Your task to perform on an android device: Clear the shopping cart on target. Add "apple airpods" to the cart on target, then select checkout. Image 0: 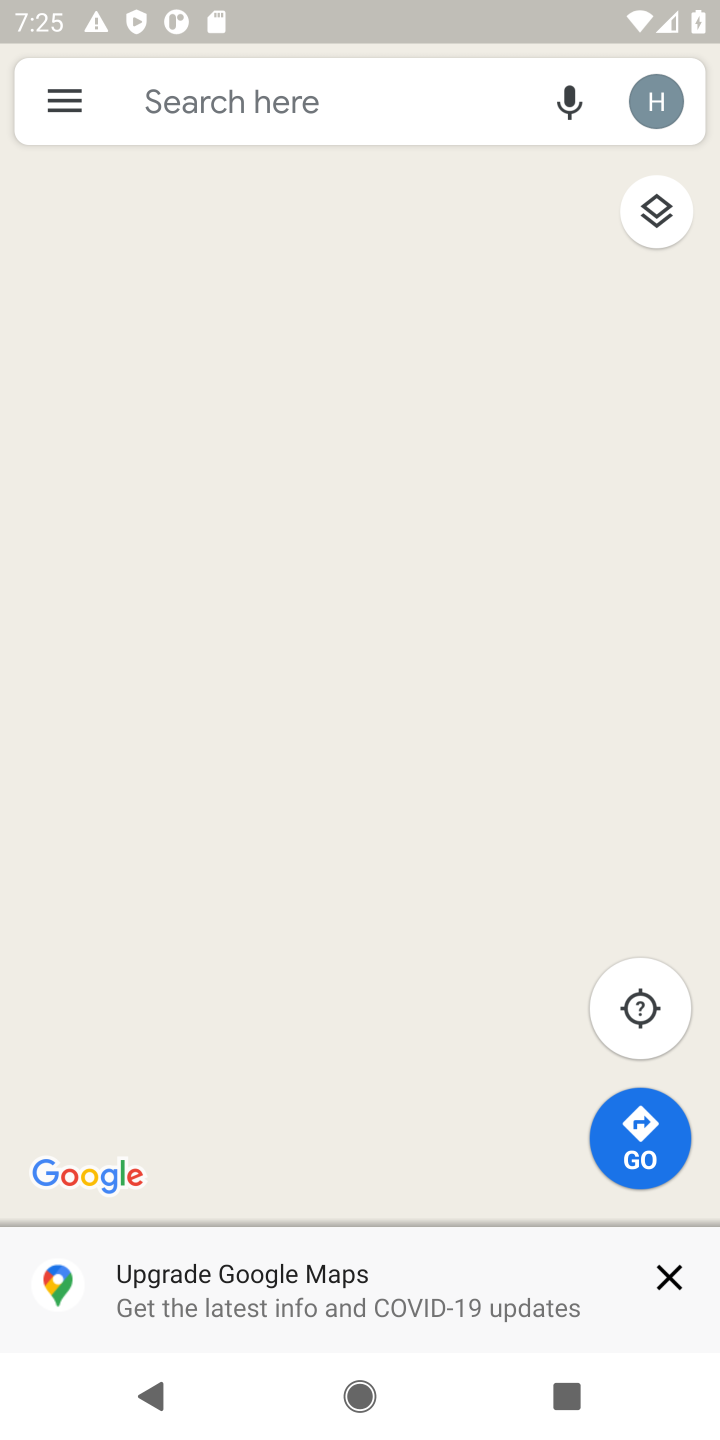
Step 0: press home button
Your task to perform on an android device: Clear the shopping cart on target. Add "apple airpods" to the cart on target, then select checkout. Image 1: 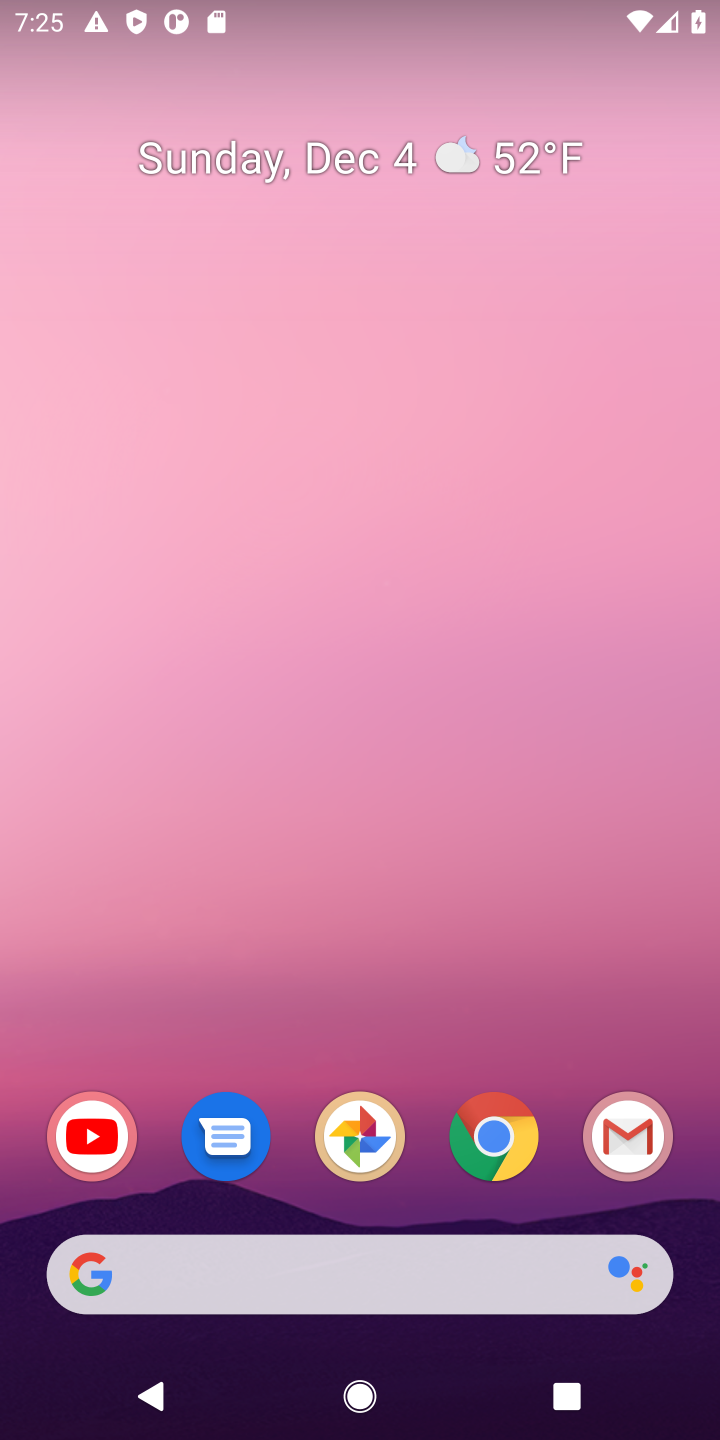
Step 1: click (480, 1134)
Your task to perform on an android device: Clear the shopping cart on target. Add "apple airpods" to the cart on target, then select checkout. Image 2: 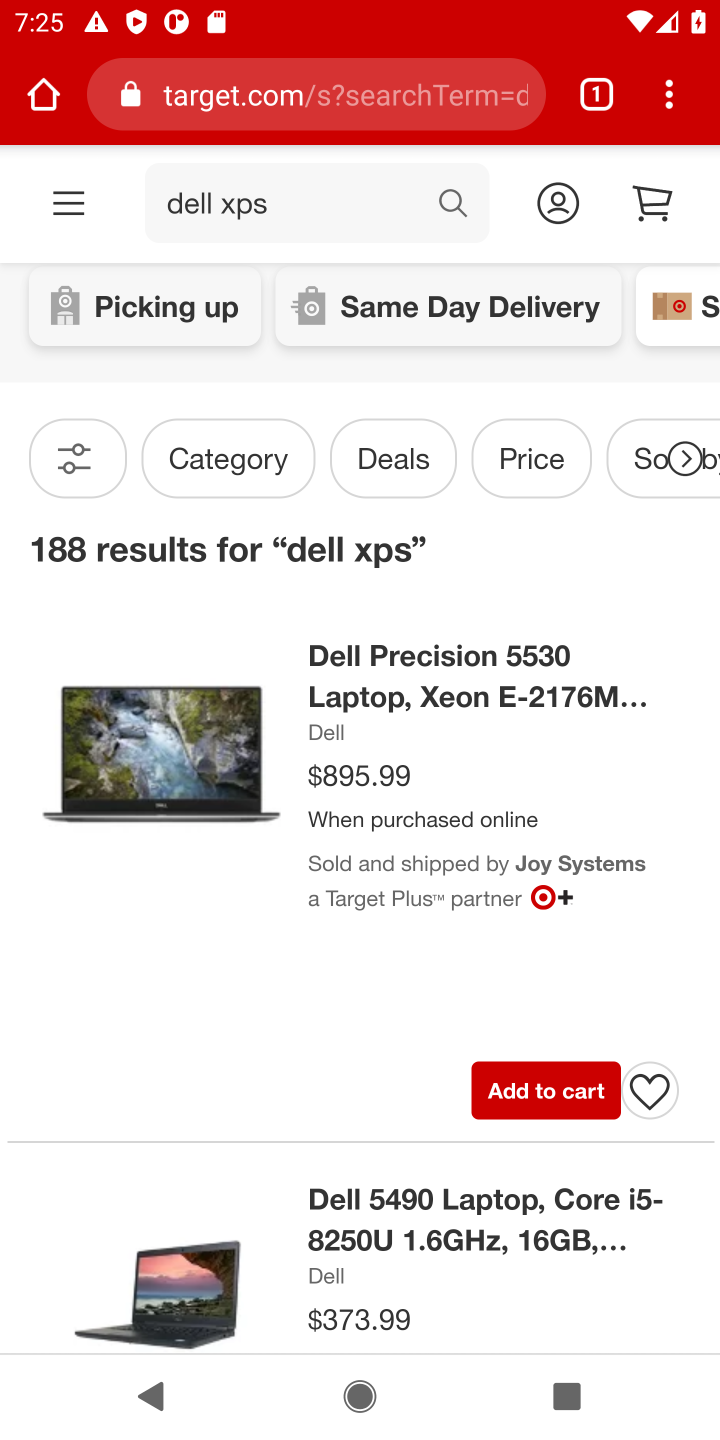
Step 2: click (659, 190)
Your task to perform on an android device: Clear the shopping cart on target. Add "apple airpods" to the cart on target, then select checkout. Image 3: 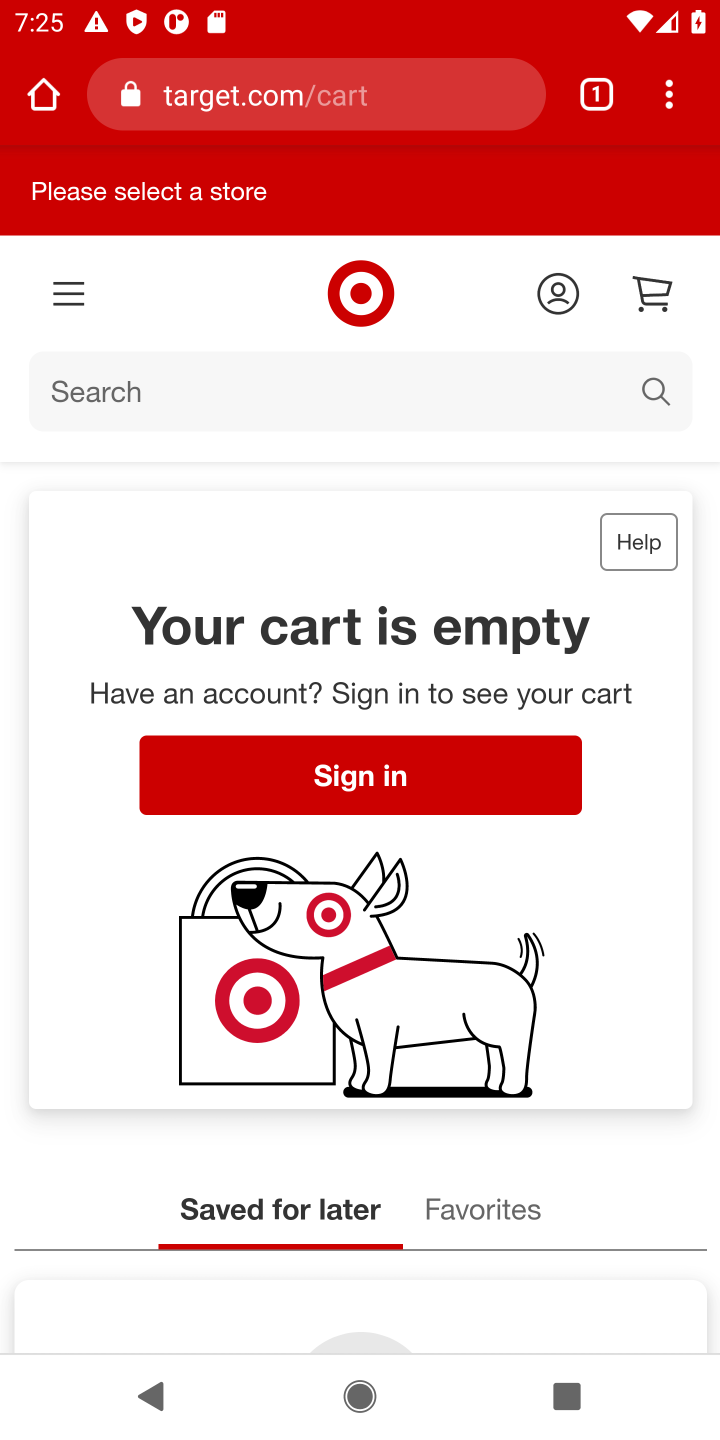
Step 3: click (98, 404)
Your task to perform on an android device: Clear the shopping cart on target. Add "apple airpods" to the cart on target, then select checkout. Image 4: 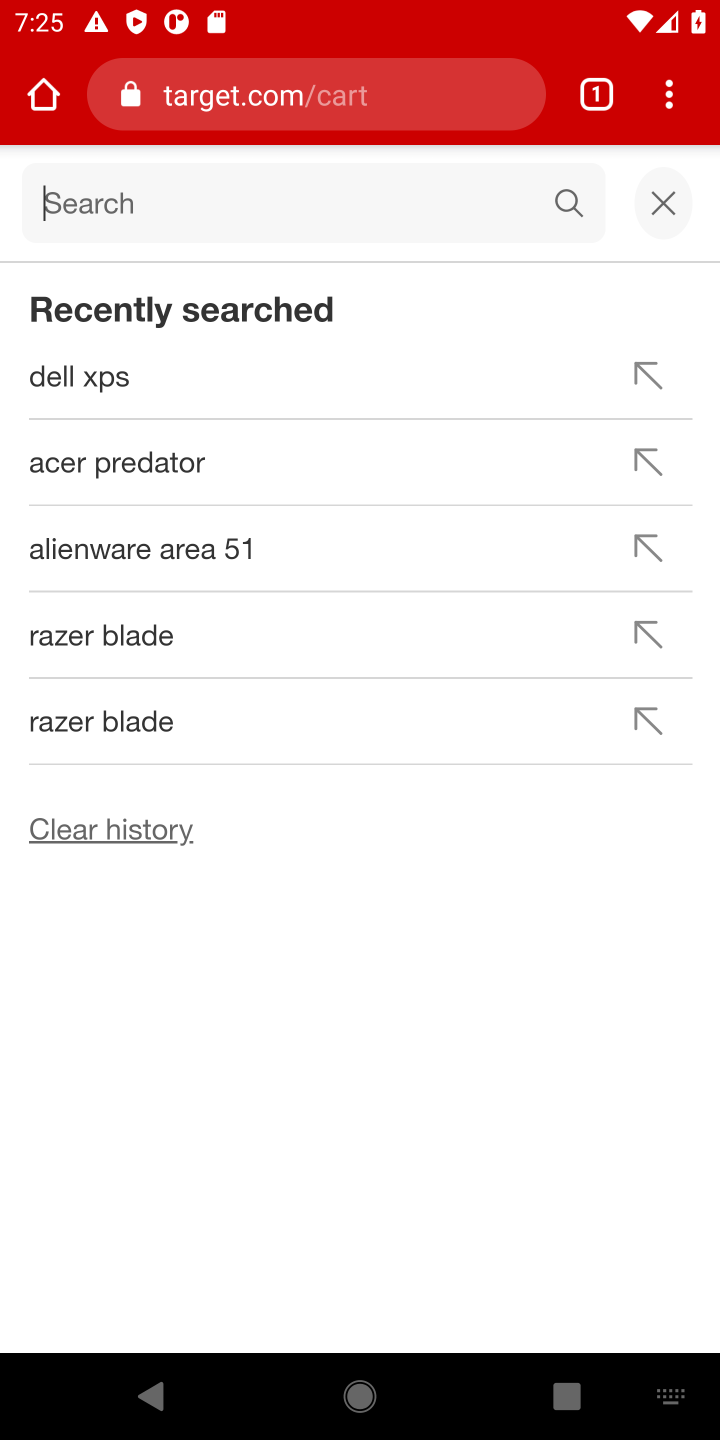
Step 4: type "apple airpods"
Your task to perform on an android device: Clear the shopping cart on target. Add "apple airpods" to the cart on target, then select checkout. Image 5: 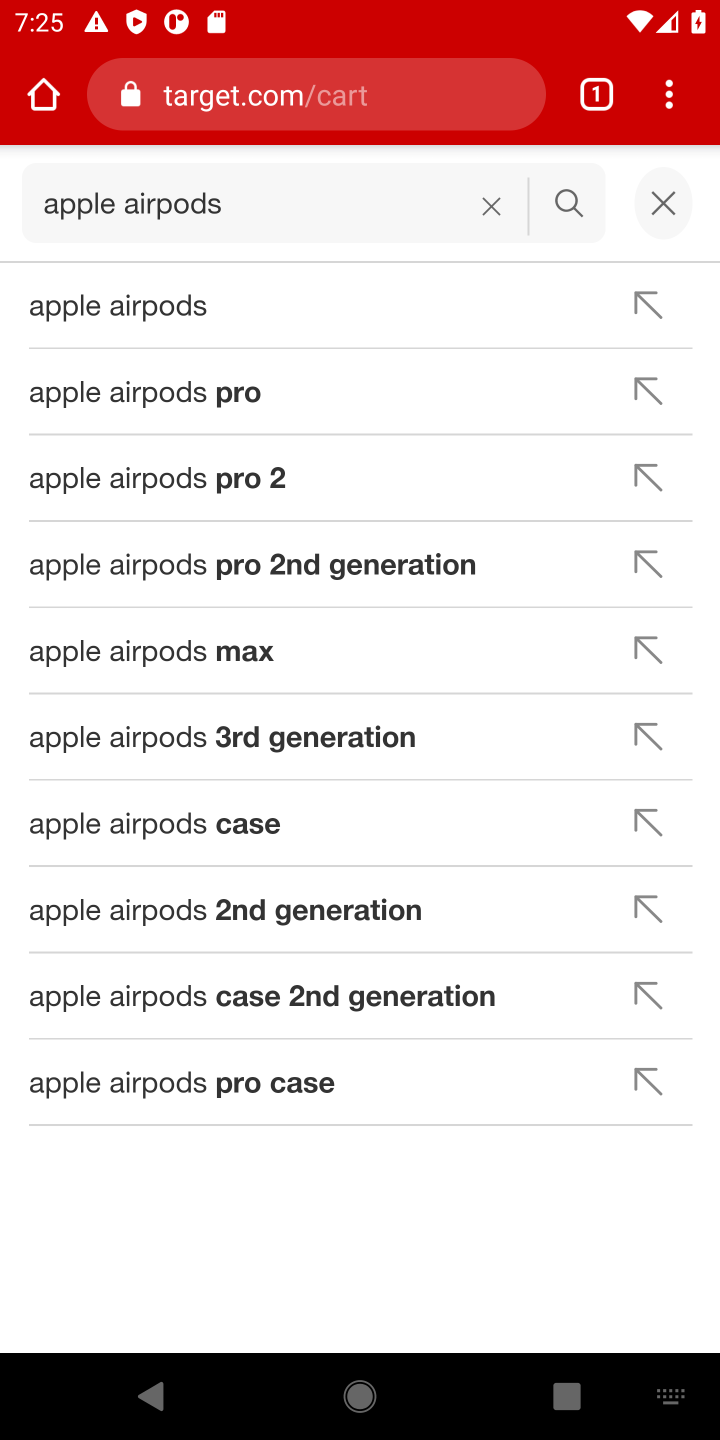
Step 5: click (146, 326)
Your task to perform on an android device: Clear the shopping cart on target. Add "apple airpods" to the cart on target, then select checkout. Image 6: 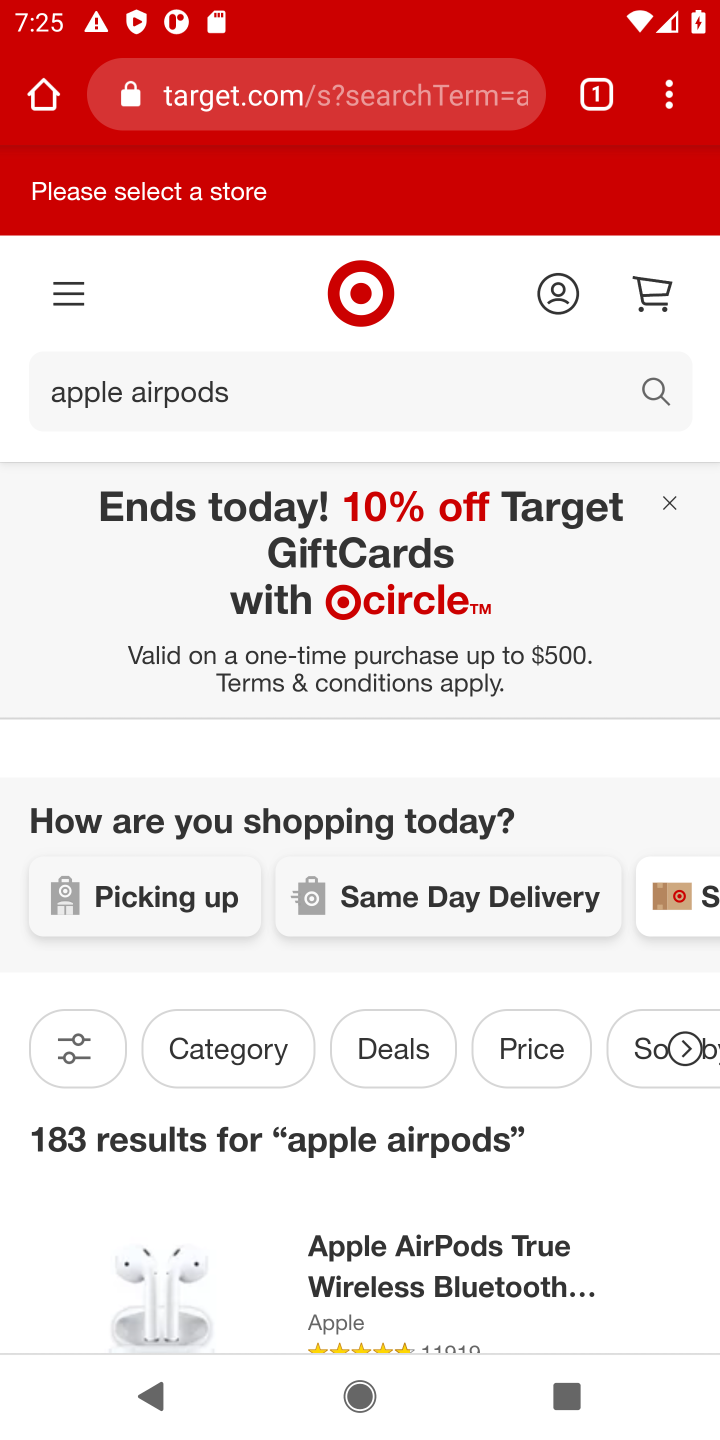
Step 6: drag from (335, 745) to (325, 451)
Your task to perform on an android device: Clear the shopping cart on target. Add "apple airpods" to the cart on target, then select checkout. Image 7: 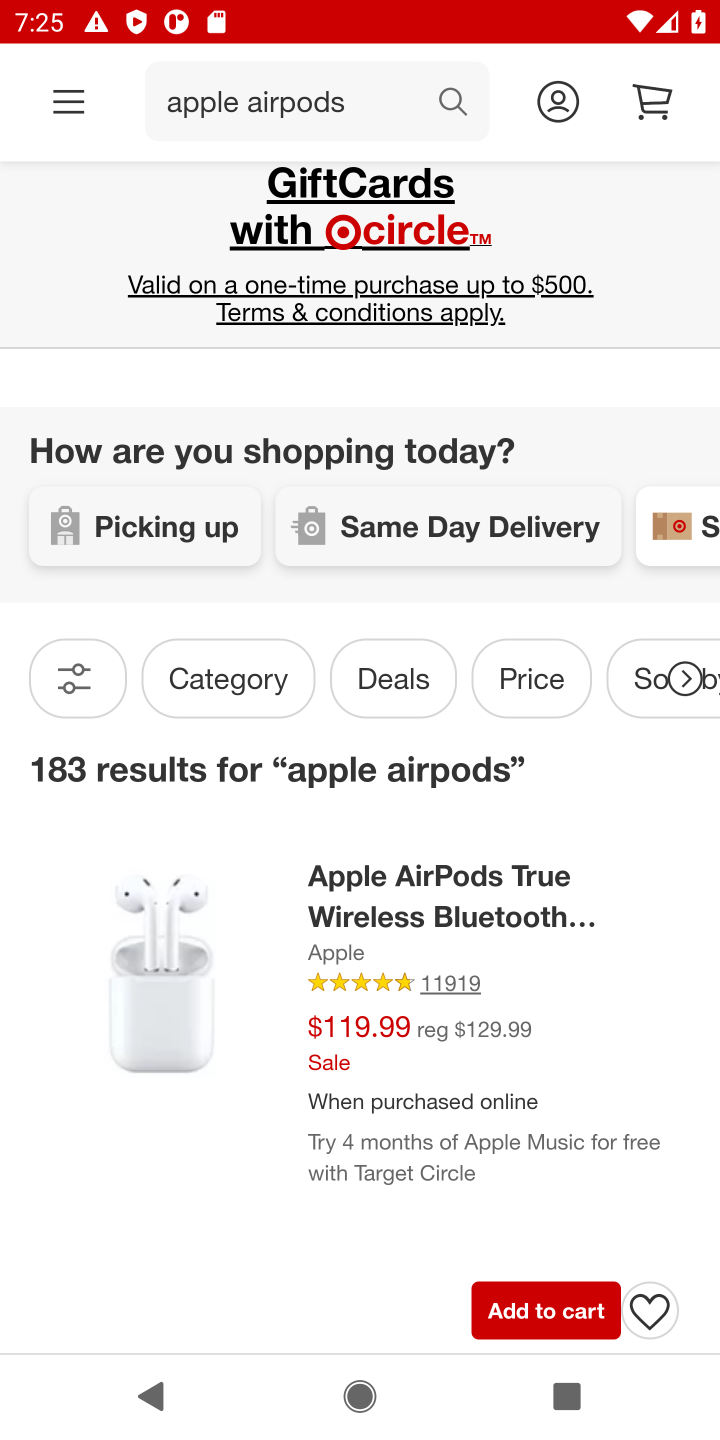
Step 7: click (538, 1319)
Your task to perform on an android device: Clear the shopping cart on target. Add "apple airpods" to the cart on target, then select checkout. Image 8: 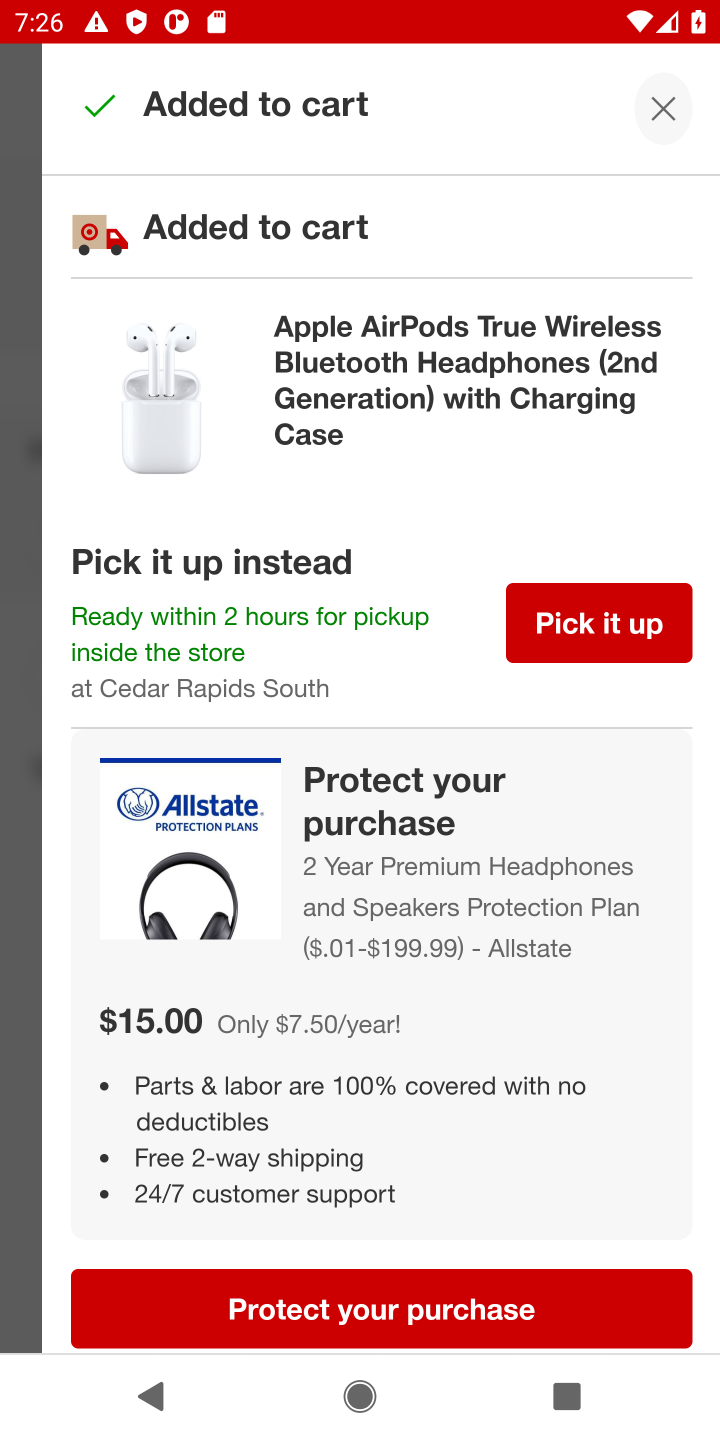
Step 8: click (662, 116)
Your task to perform on an android device: Clear the shopping cart on target. Add "apple airpods" to the cart on target, then select checkout. Image 9: 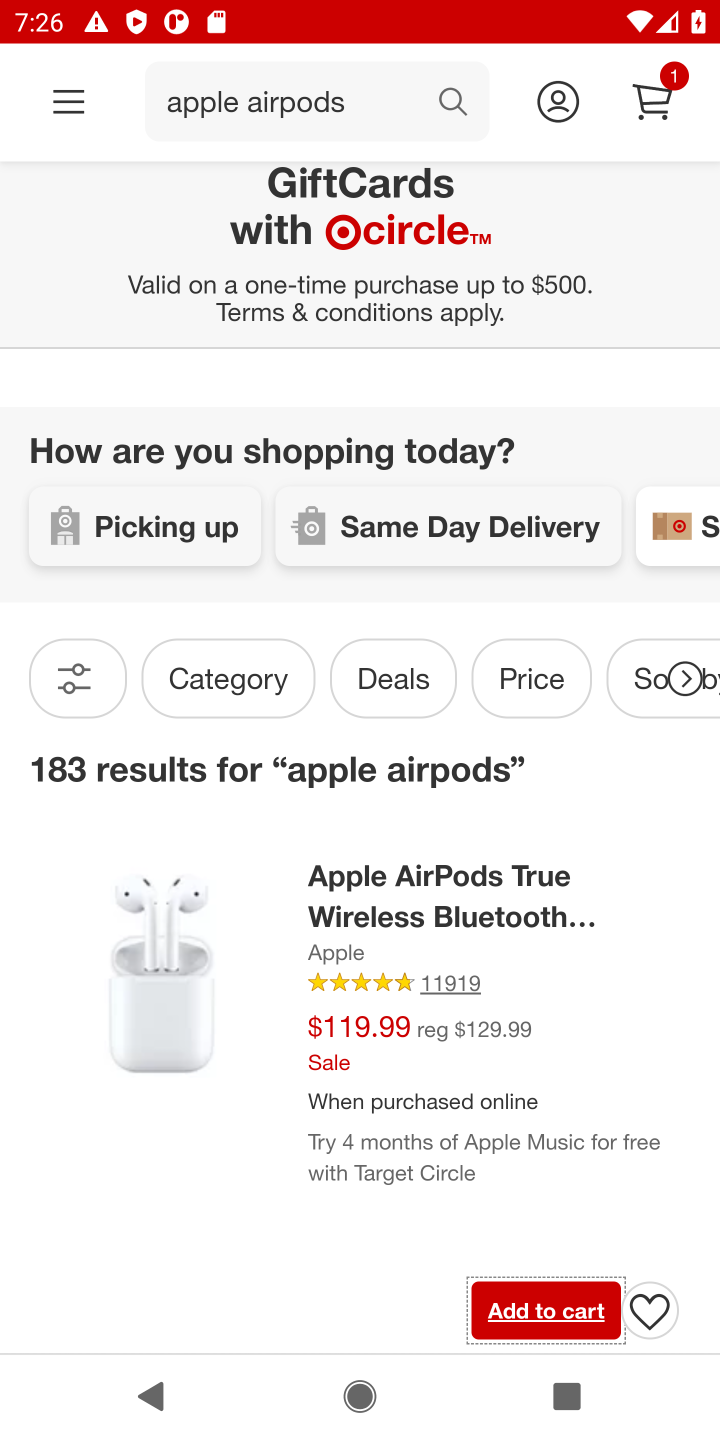
Step 9: click (657, 107)
Your task to perform on an android device: Clear the shopping cart on target. Add "apple airpods" to the cart on target, then select checkout. Image 10: 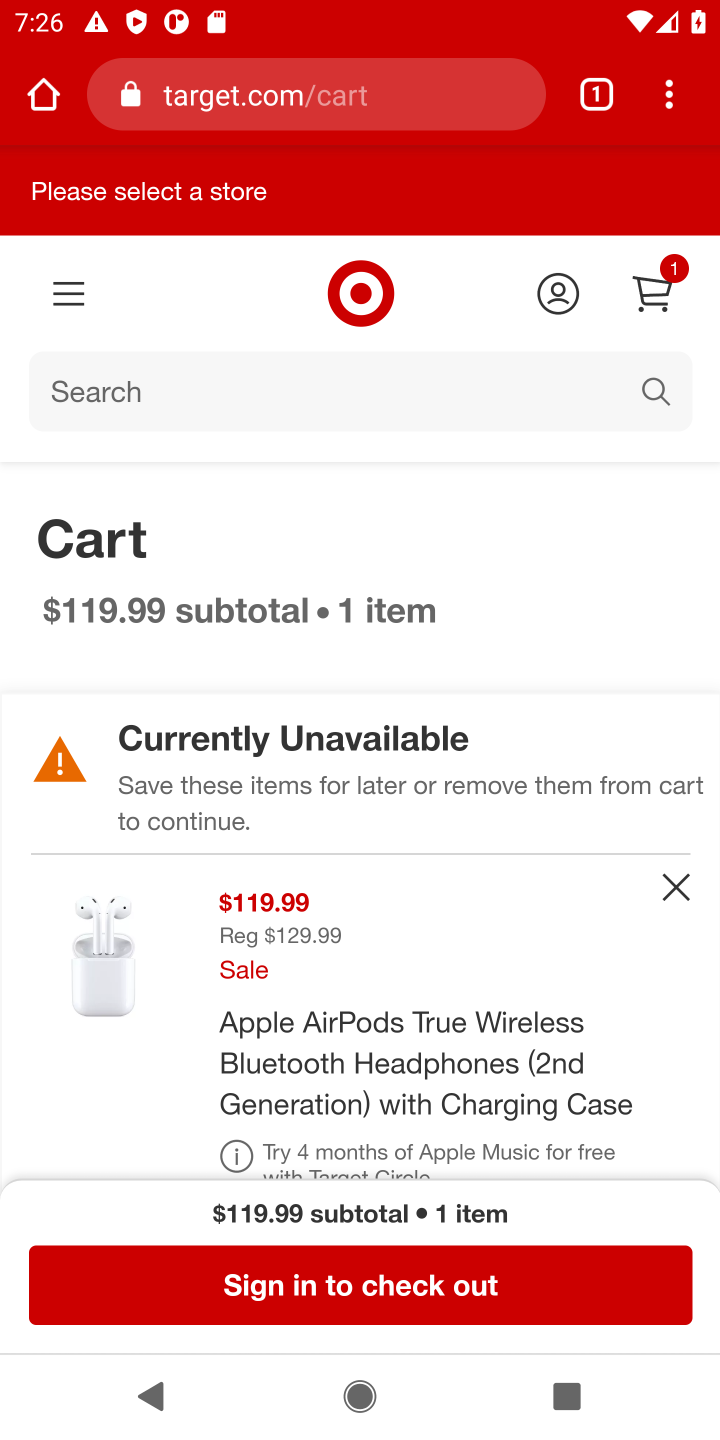
Step 10: click (361, 1292)
Your task to perform on an android device: Clear the shopping cart on target. Add "apple airpods" to the cart on target, then select checkout. Image 11: 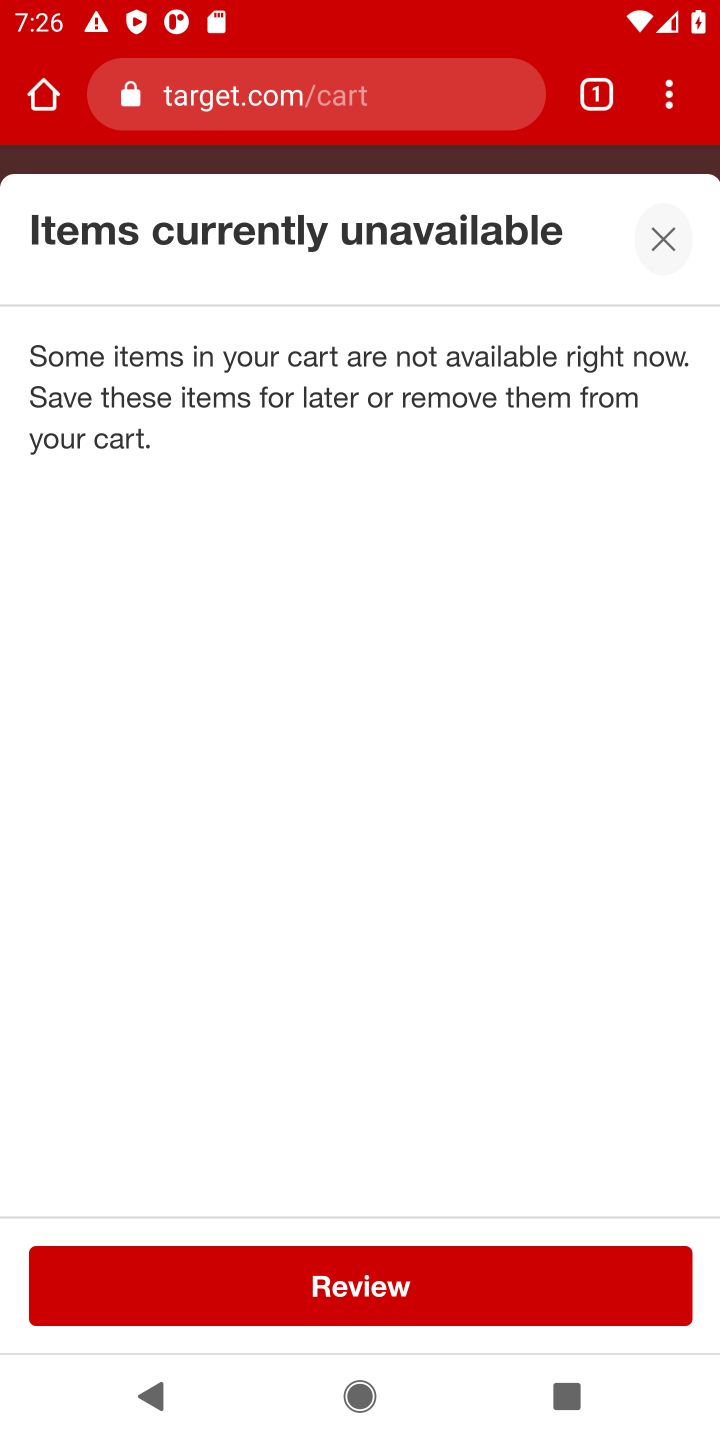
Step 11: task complete